Your task to perform on an android device: open chrome and create a bookmark for the current page Image 0: 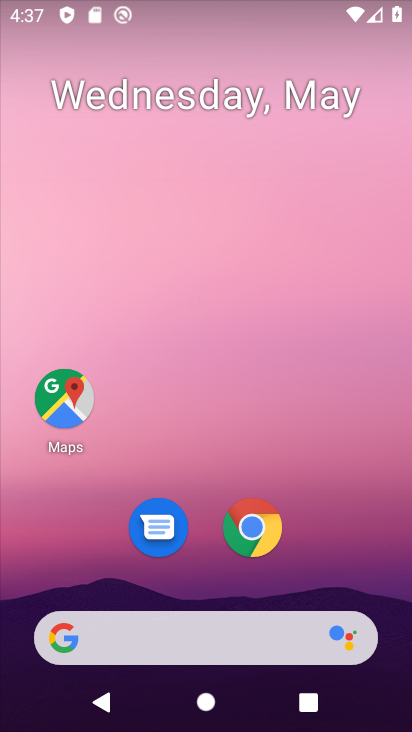
Step 0: click (260, 548)
Your task to perform on an android device: open chrome and create a bookmark for the current page Image 1: 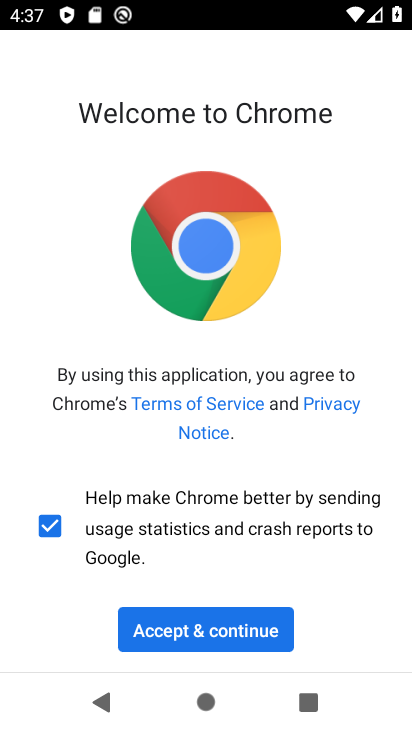
Step 1: click (178, 644)
Your task to perform on an android device: open chrome and create a bookmark for the current page Image 2: 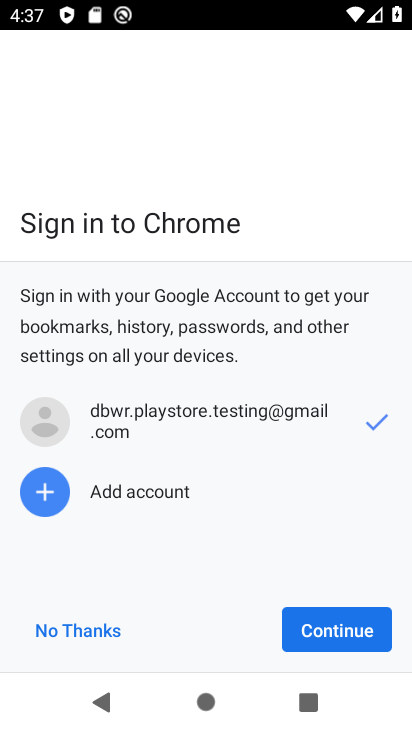
Step 2: click (346, 638)
Your task to perform on an android device: open chrome and create a bookmark for the current page Image 3: 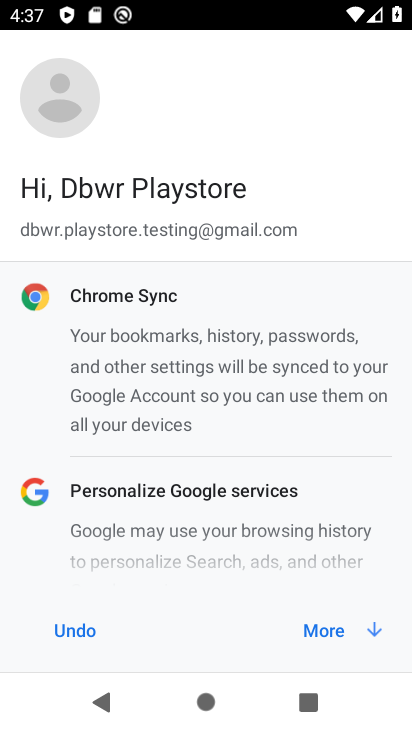
Step 3: click (335, 635)
Your task to perform on an android device: open chrome and create a bookmark for the current page Image 4: 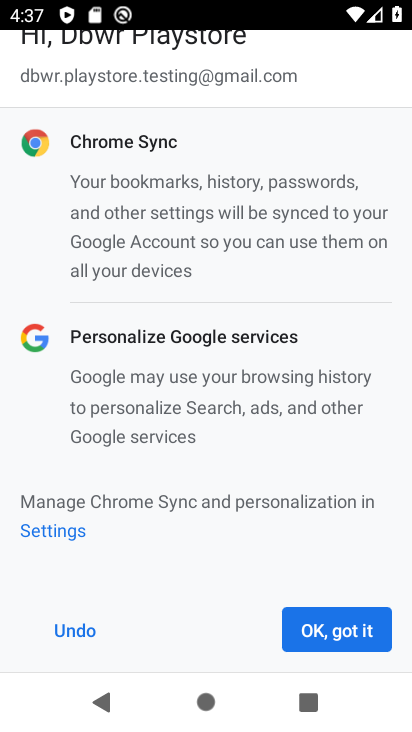
Step 4: click (334, 634)
Your task to perform on an android device: open chrome and create a bookmark for the current page Image 5: 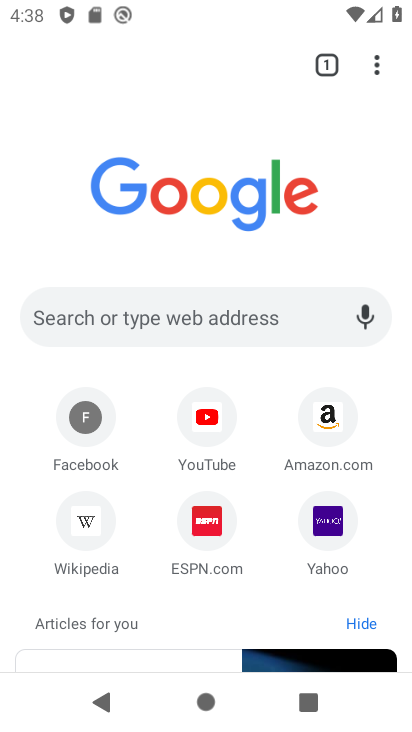
Step 5: click (380, 71)
Your task to perform on an android device: open chrome and create a bookmark for the current page Image 6: 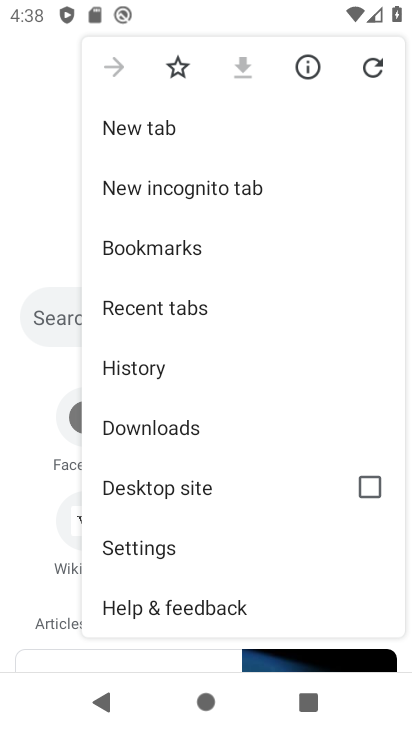
Step 6: click (178, 68)
Your task to perform on an android device: open chrome and create a bookmark for the current page Image 7: 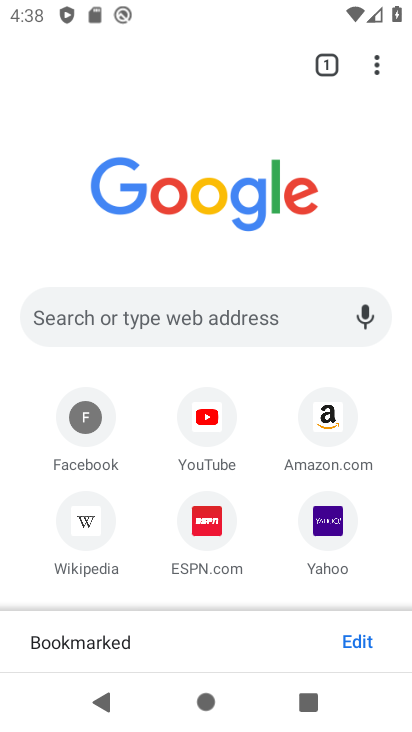
Step 7: task complete